Your task to perform on an android device: Open battery settings Image 0: 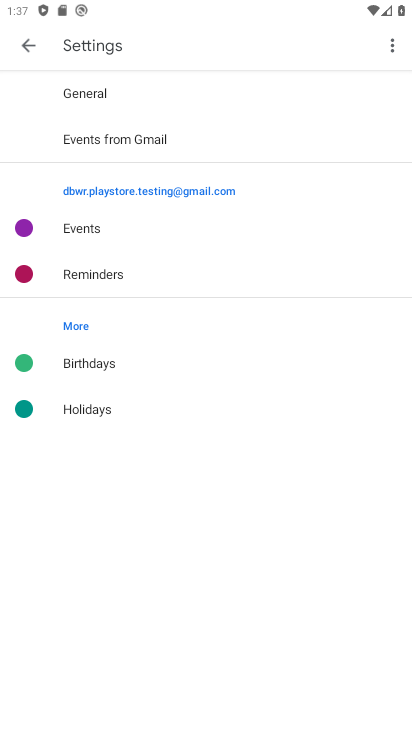
Step 0: press home button
Your task to perform on an android device: Open battery settings Image 1: 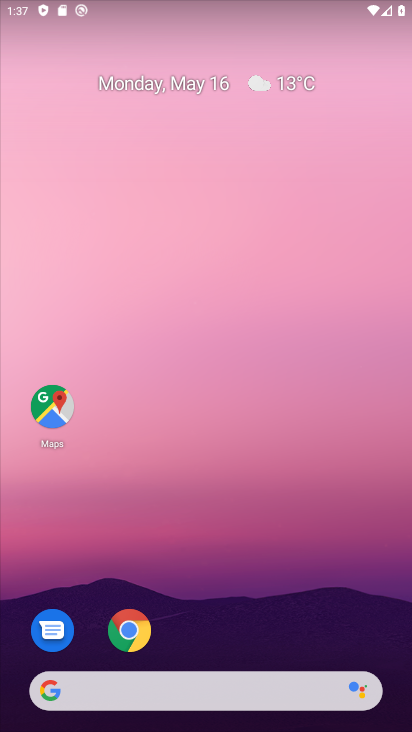
Step 1: drag from (235, 498) to (254, 9)
Your task to perform on an android device: Open battery settings Image 2: 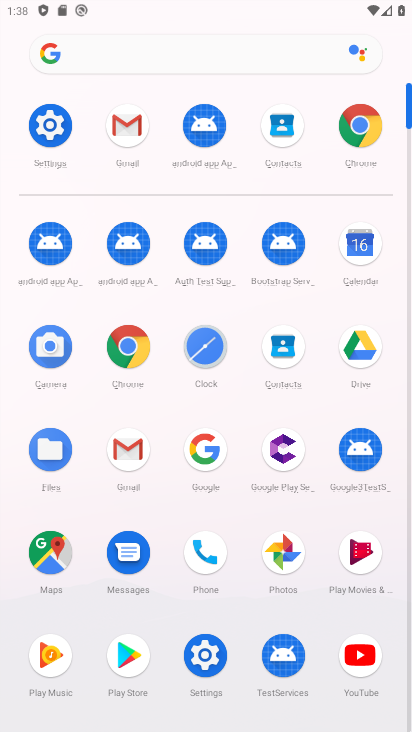
Step 2: click (53, 122)
Your task to perform on an android device: Open battery settings Image 3: 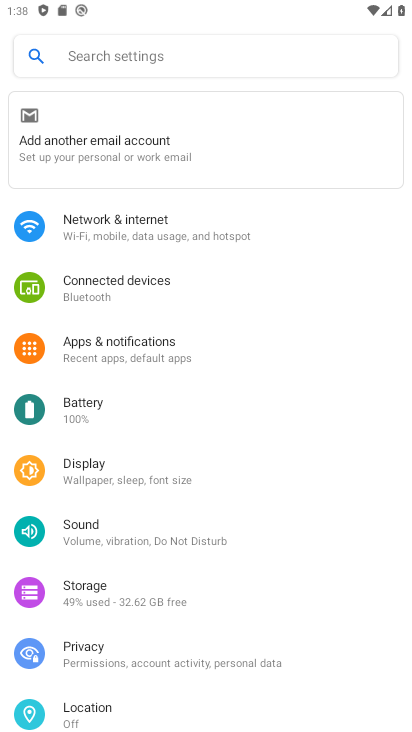
Step 3: click (113, 400)
Your task to perform on an android device: Open battery settings Image 4: 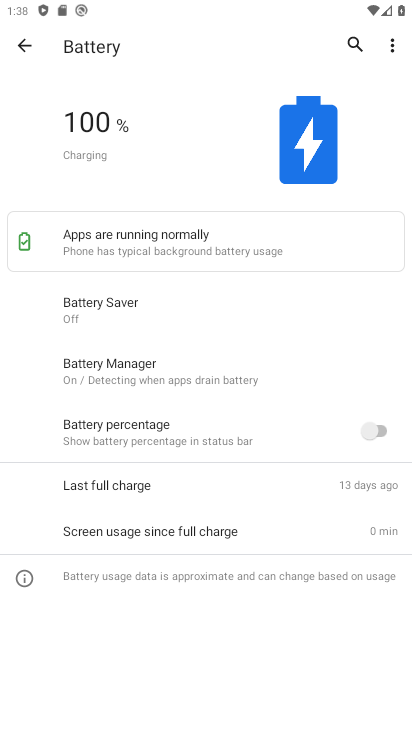
Step 4: task complete